Your task to perform on an android device: open a new tab in the chrome app Image 0: 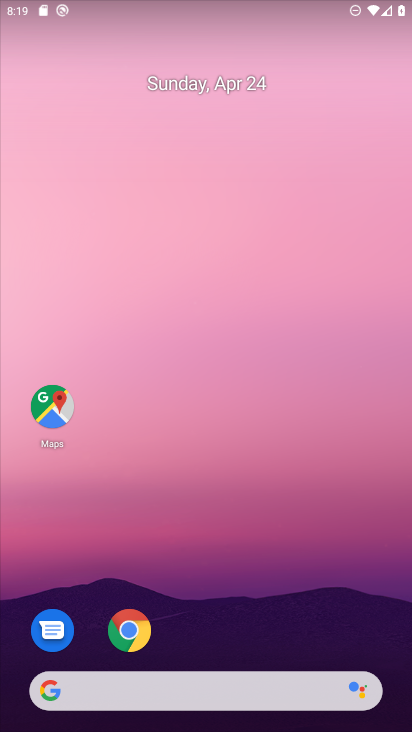
Step 0: click (118, 636)
Your task to perform on an android device: open a new tab in the chrome app Image 1: 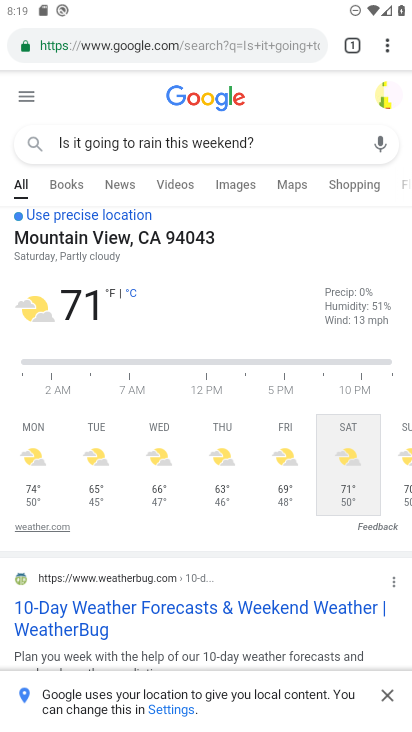
Step 1: task complete